Your task to perform on an android device: check storage Image 0: 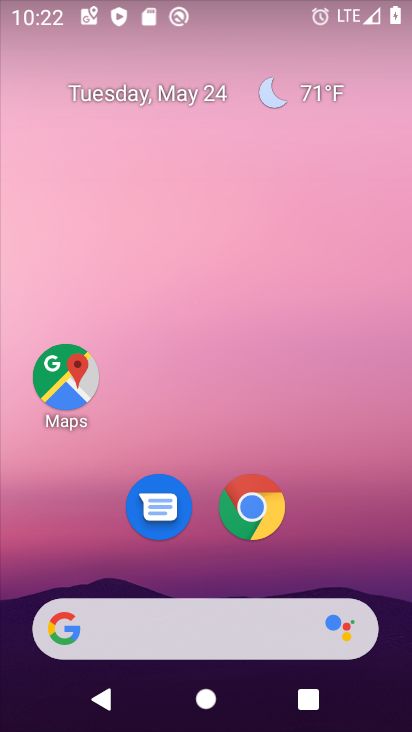
Step 0: drag from (230, 723) to (202, 107)
Your task to perform on an android device: check storage Image 1: 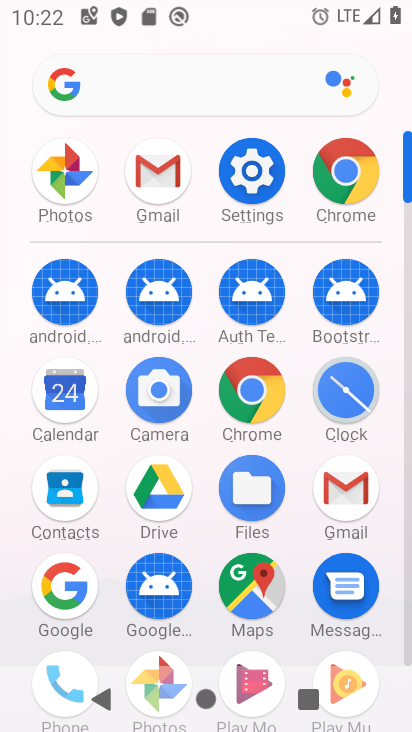
Step 1: click (253, 180)
Your task to perform on an android device: check storage Image 2: 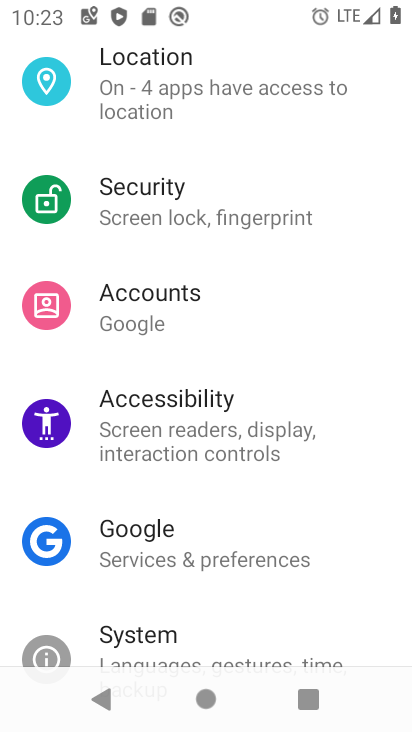
Step 2: drag from (170, 598) to (184, 270)
Your task to perform on an android device: check storage Image 3: 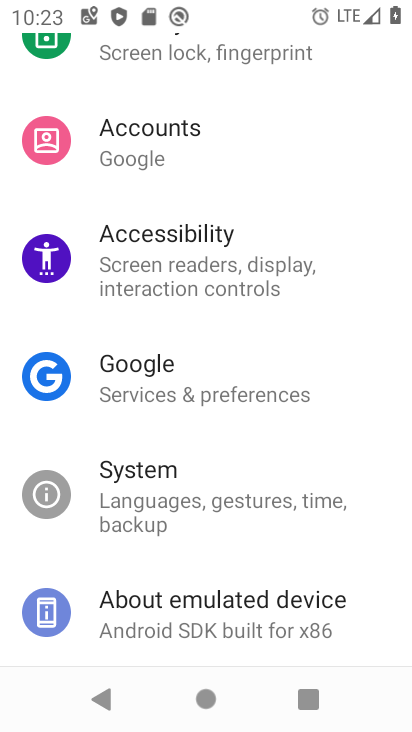
Step 3: drag from (257, 166) to (272, 543)
Your task to perform on an android device: check storage Image 4: 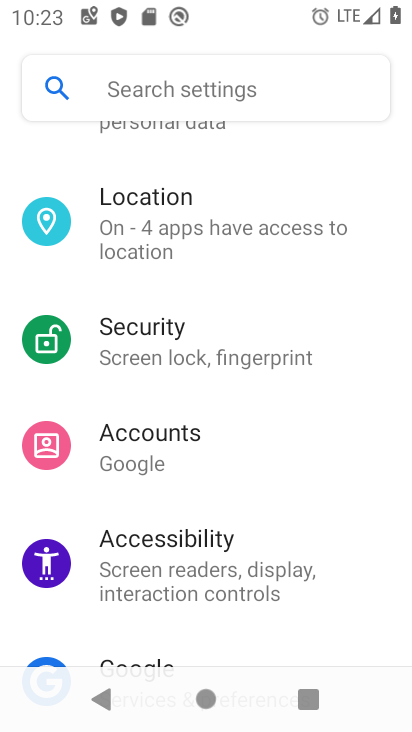
Step 4: drag from (212, 193) to (241, 513)
Your task to perform on an android device: check storage Image 5: 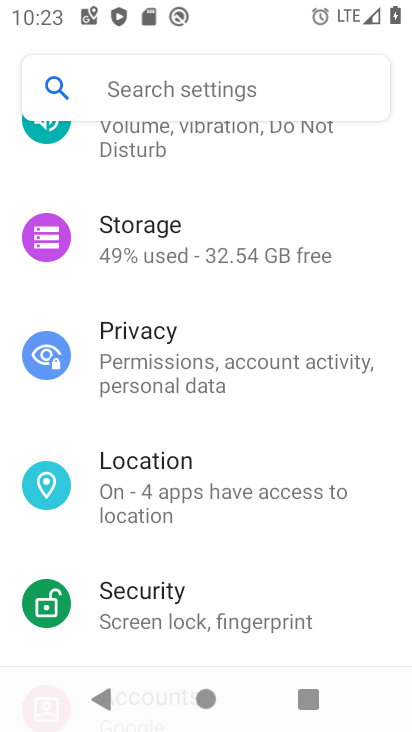
Step 5: click (159, 233)
Your task to perform on an android device: check storage Image 6: 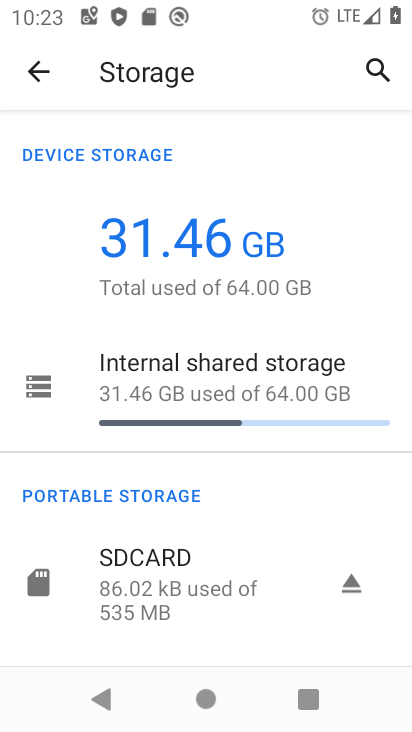
Step 6: task complete